Your task to perform on an android device: Open Youtube and go to "Your channel" Image 0: 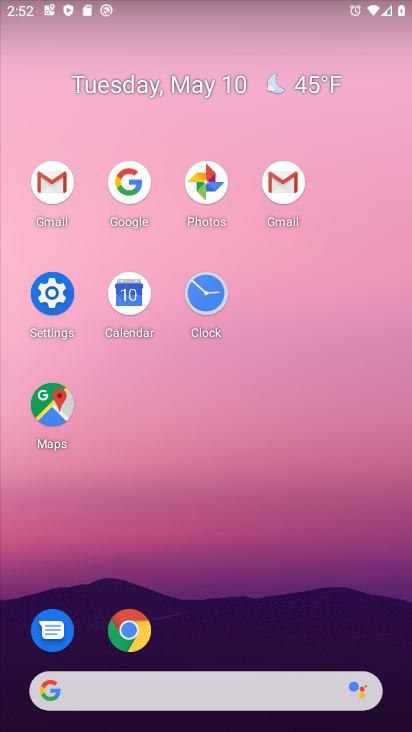
Step 0: drag from (266, 656) to (324, 236)
Your task to perform on an android device: Open Youtube and go to "Your channel" Image 1: 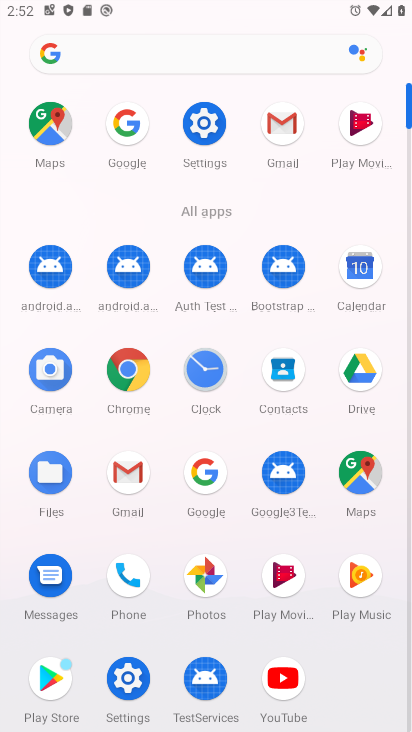
Step 1: click (290, 667)
Your task to perform on an android device: Open Youtube and go to "Your channel" Image 2: 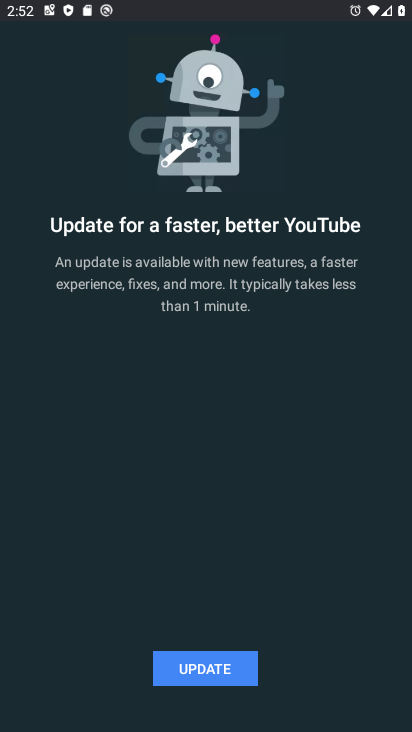
Step 2: click (179, 661)
Your task to perform on an android device: Open Youtube and go to "Your channel" Image 3: 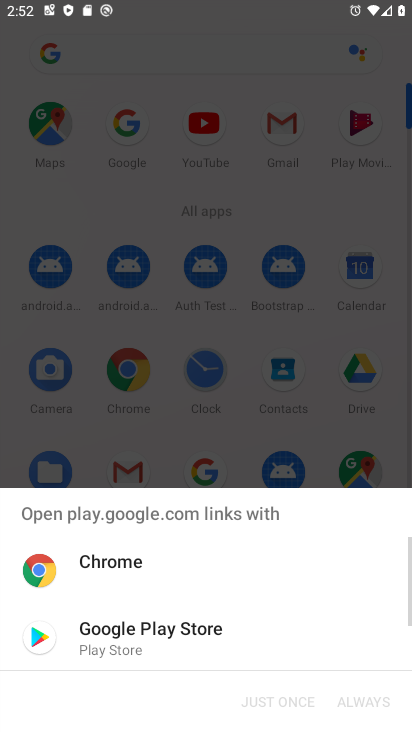
Step 3: click (169, 637)
Your task to perform on an android device: Open Youtube and go to "Your channel" Image 4: 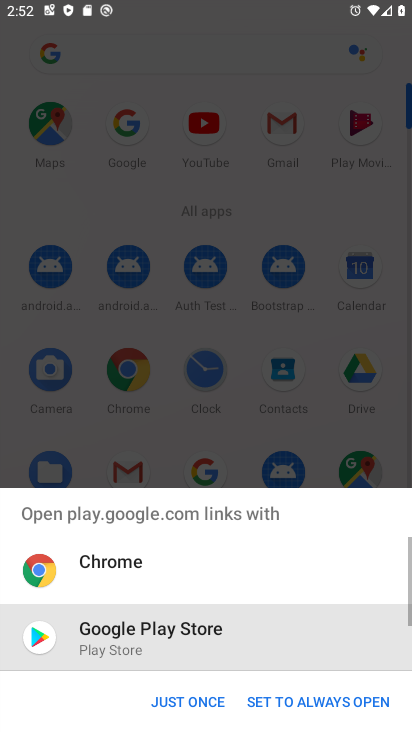
Step 4: drag from (169, 637) to (269, 637)
Your task to perform on an android device: Open Youtube and go to "Your channel" Image 5: 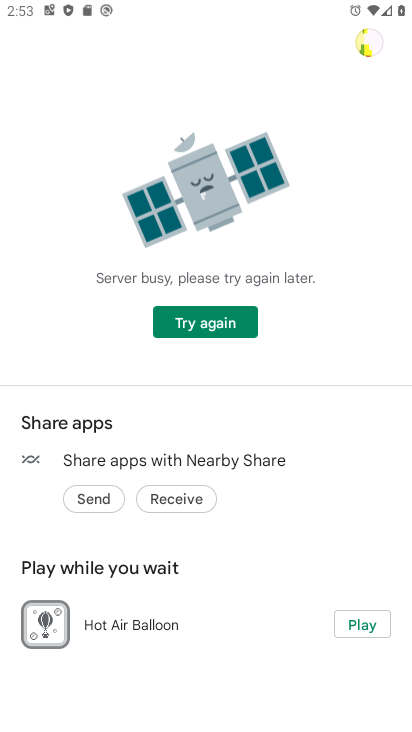
Step 5: click (190, 323)
Your task to perform on an android device: Open Youtube and go to "Your channel" Image 6: 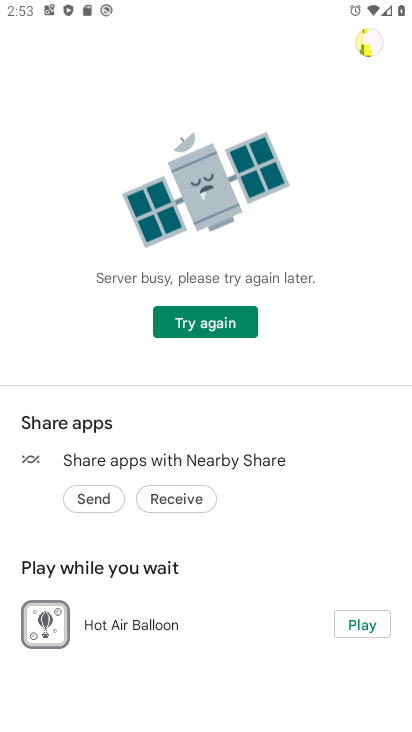
Step 6: task complete